Your task to perform on an android device: change the clock display to show seconds Image 0: 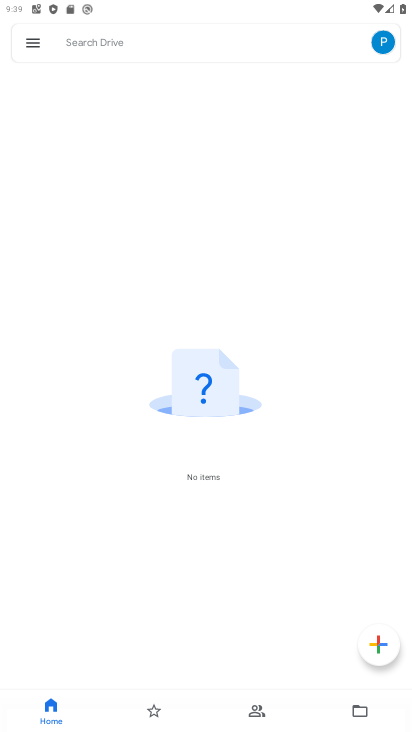
Step 0: press home button
Your task to perform on an android device: change the clock display to show seconds Image 1: 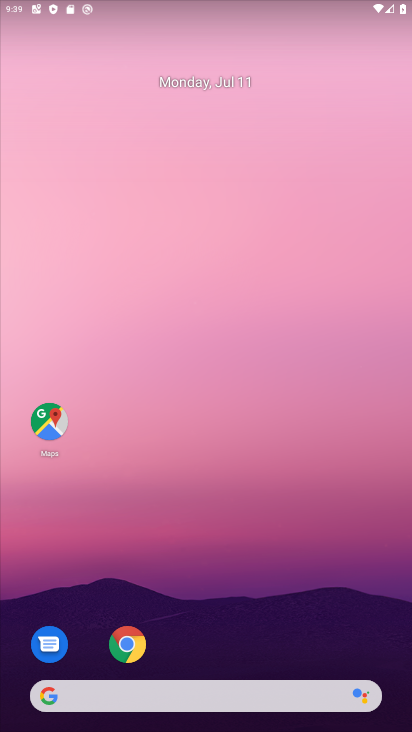
Step 1: drag from (223, 639) to (289, 150)
Your task to perform on an android device: change the clock display to show seconds Image 2: 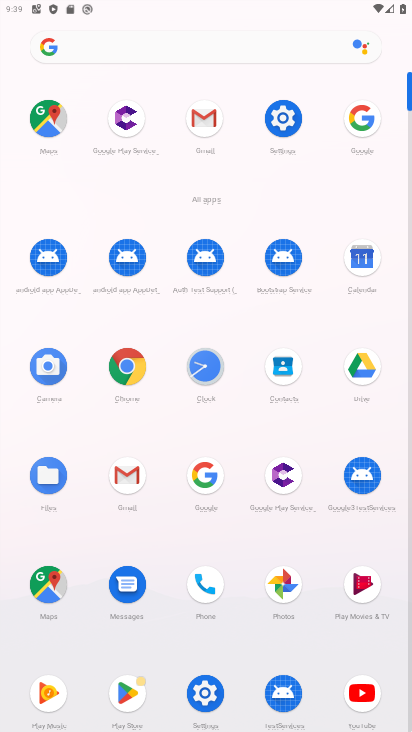
Step 2: click (202, 360)
Your task to perform on an android device: change the clock display to show seconds Image 3: 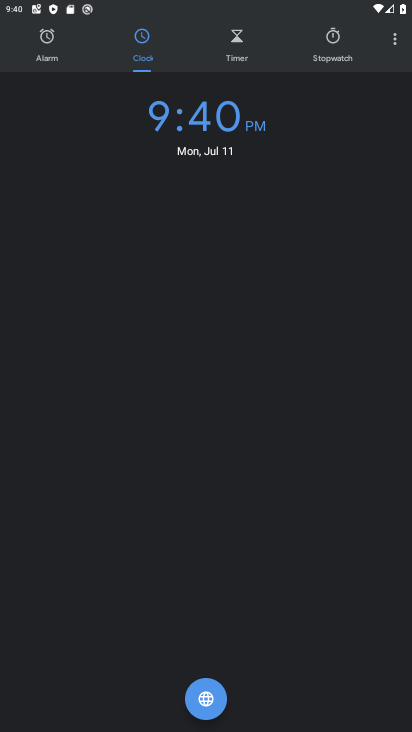
Step 3: click (389, 35)
Your task to perform on an android device: change the clock display to show seconds Image 4: 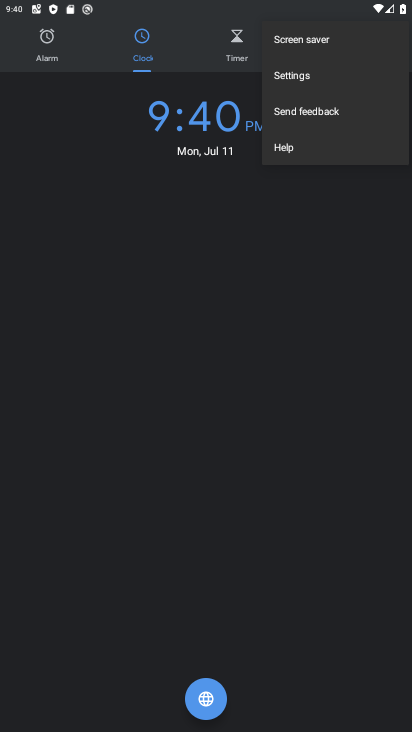
Step 4: click (318, 79)
Your task to perform on an android device: change the clock display to show seconds Image 5: 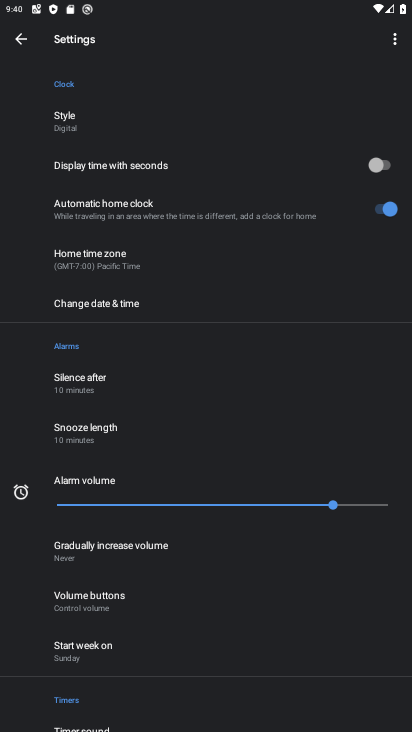
Step 5: click (378, 166)
Your task to perform on an android device: change the clock display to show seconds Image 6: 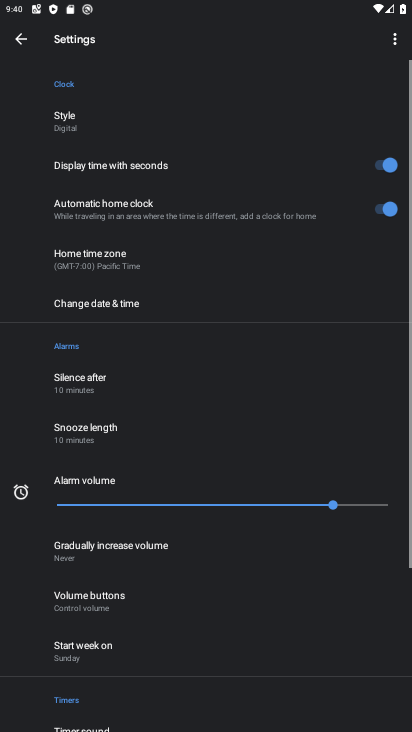
Step 6: task complete